Your task to perform on an android device: What is the recent news? Image 0: 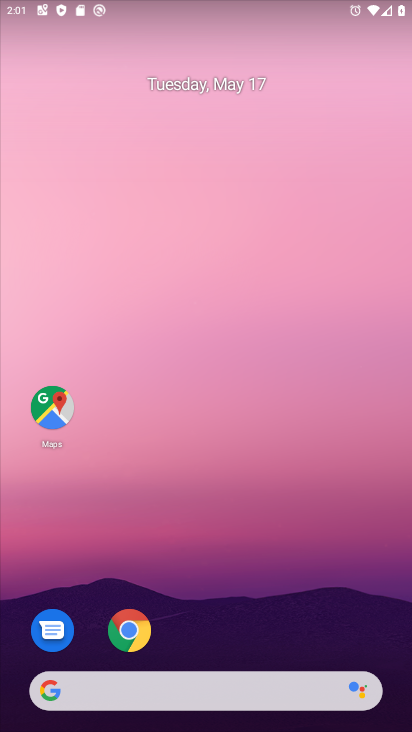
Step 0: drag from (352, 619) to (372, 198)
Your task to perform on an android device: What is the recent news? Image 1: 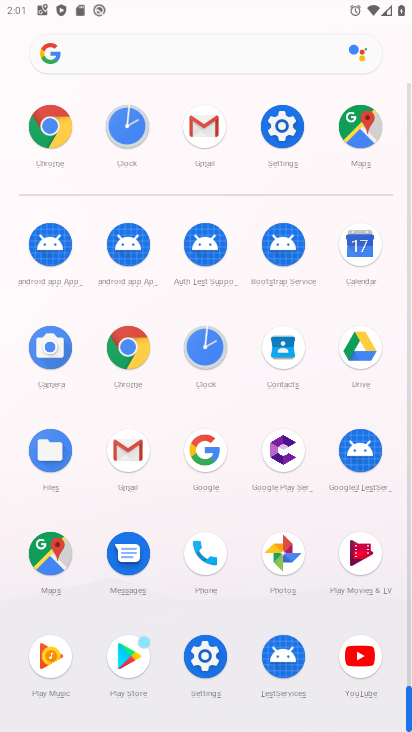
Step 1: click (15, 113)
Your task to perform on an android device: What is the recent news? Image 2: 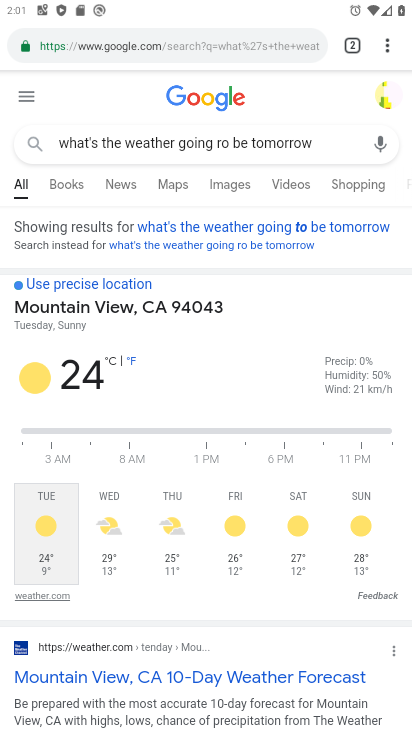
Step 2: click (171, 56)
Your task to perform on an android device: What is the recent news? Image 3: 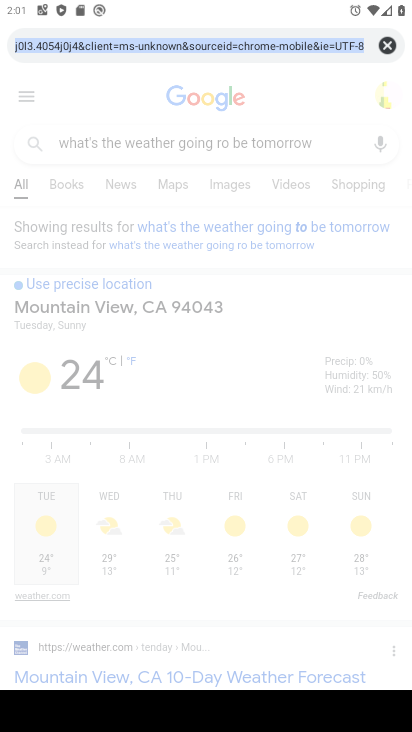
Step 3: click (384, 40)
Your task to perform on an android device: What is the recent news? Image 4: 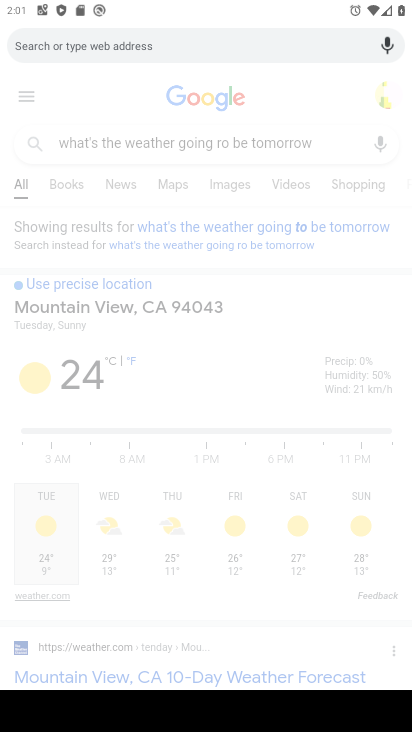
Step 4: type "what is the recent news"
Your task to perform on an android device: What is the recent news? Image 5: 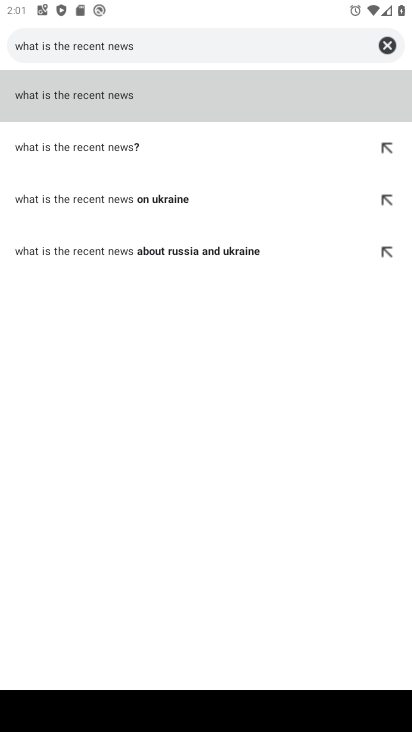
Step 5: click (142, 91)
Your task to perform on an android device: What is the recent news? Image 6: 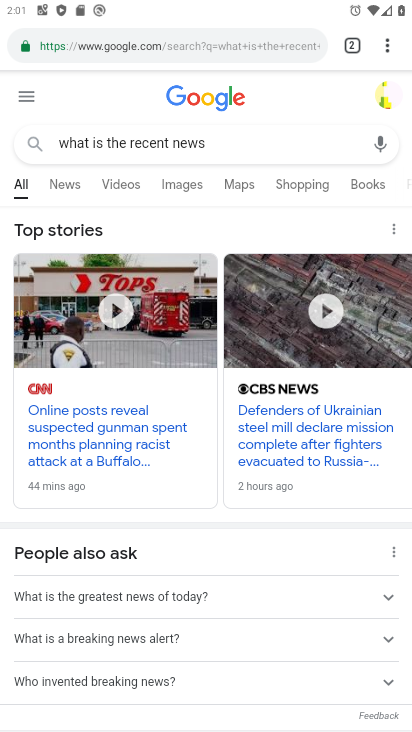
Step 6: task complete